Your task to perform on an android device: Open location settings Image 0: 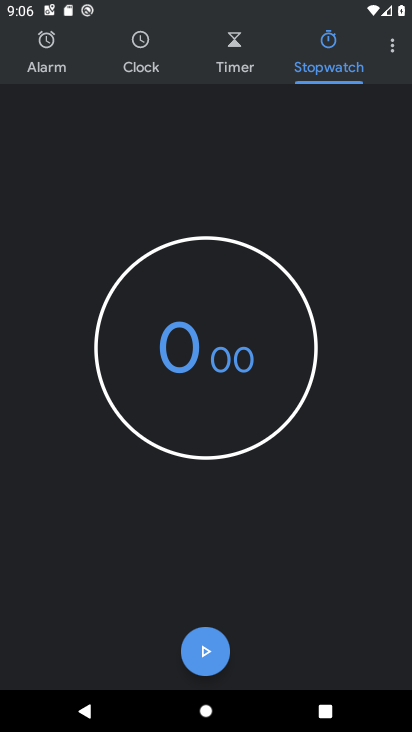
Step 0: press home button
Your task to perform on an android device: Open location settings Image 1: 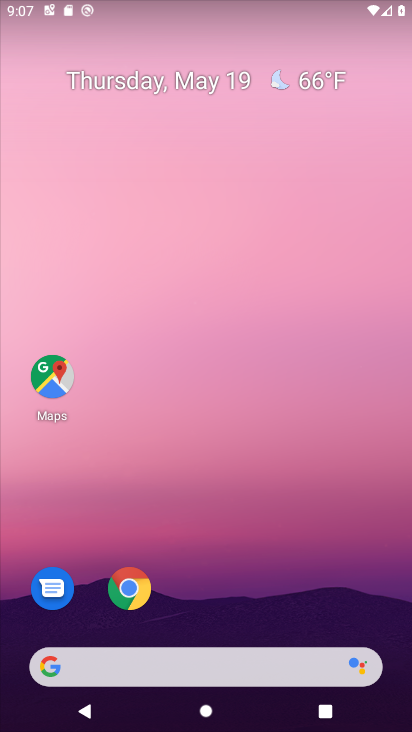
Step 1: drag from (382, 592) to (362, 232)
Your task to perform on an android device: Open location settings Image 2: 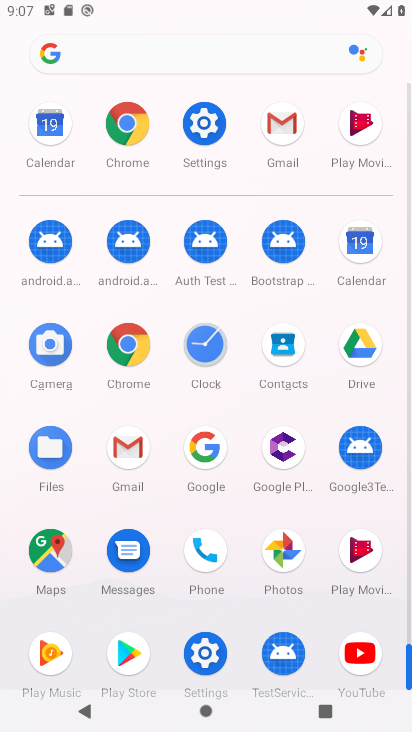
Step 2: click (216, 148)
Your task to perform on an android device: Open location settings Image 3: 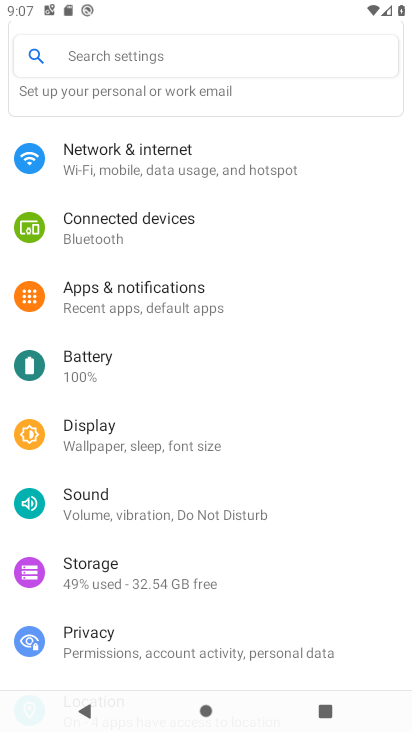
Step 3: drag from (370, 549) to (373, 381)
Your task to perform on an android device: Open location settings Image 4: 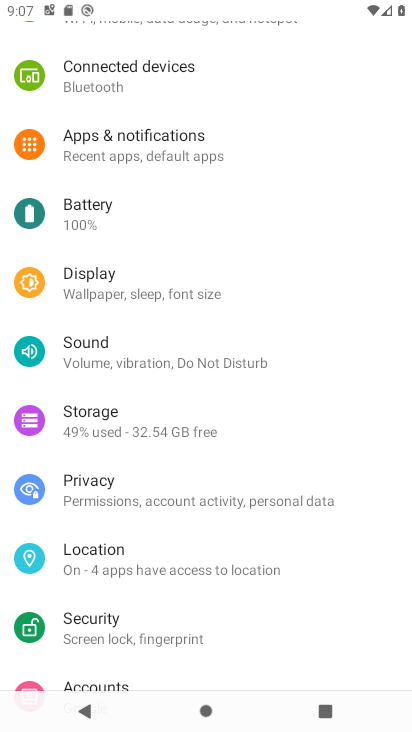
Step 4: drag from (353, 556) to (359, 465)
Your task to perform on an android device: Open location settings Image 5: 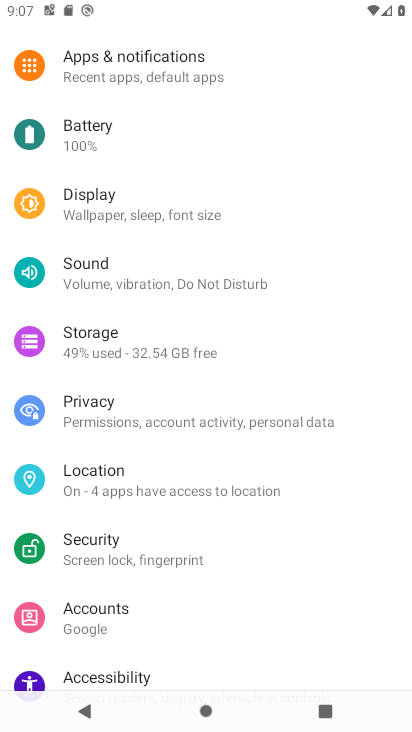
Step 5: drag from (348, 599) to (347, 413)
Your task to perform on an android device: Open location settings Image 6: 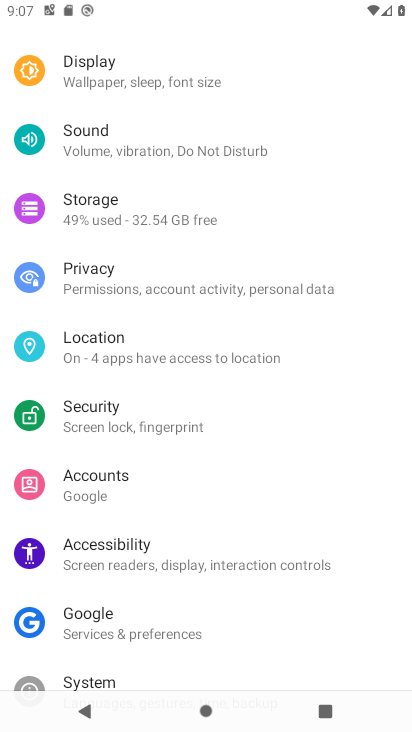
Step 6: drag from (365, 557) to (356, 378)
Your task to perform on an android device: Open location settings Image 7: 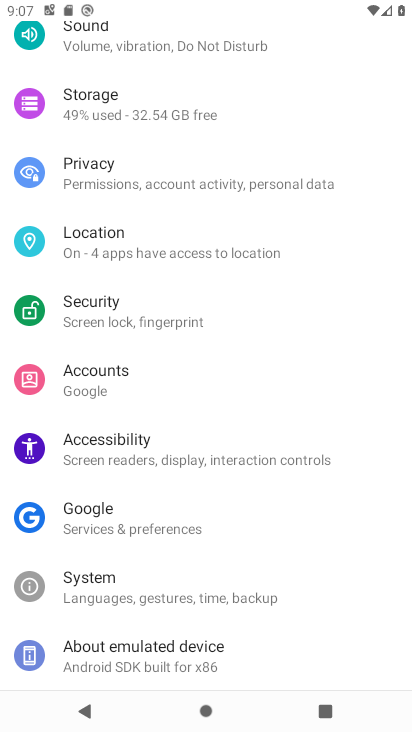
Step 7: drag from (358, 558) to (368, 406)
Your task to perform on an android device: Open location settings Image 8: 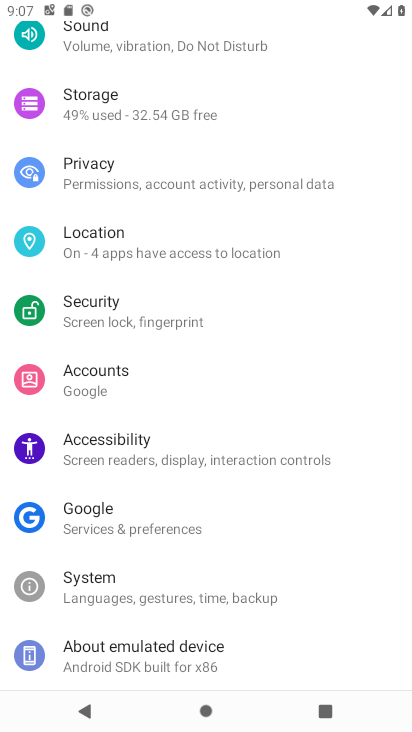
Step 8: drag from (360, 604) to (364, 454)
Your task to perform on an android device: Open location settings Image 9: 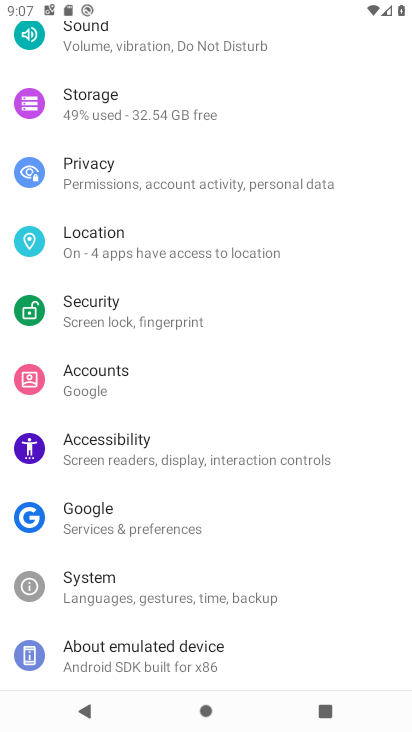
Step 9: drag from (330, 360) to (340, 530)
Your task to perform on an android device: Open location settings Image 10: 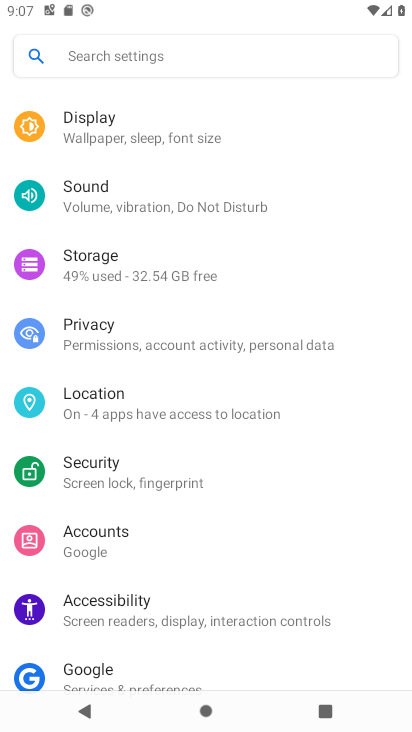
Step 10: click (265, 414)
Your task to perform on an android device: Open location settings Image 11: 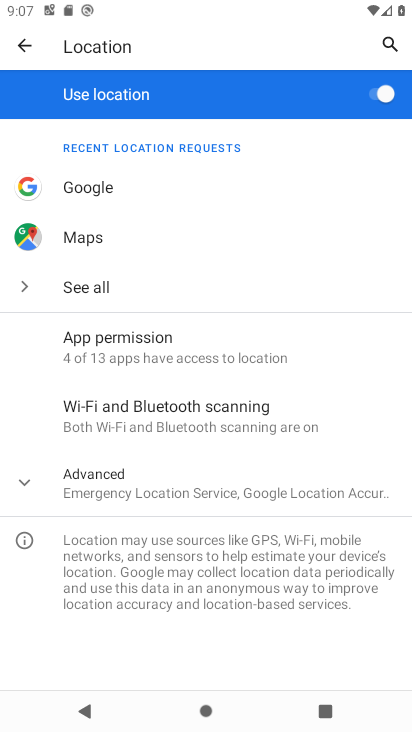
Step 11: task complete